Your task to perform on an android device: Open Chrome and go to settings Image 0: 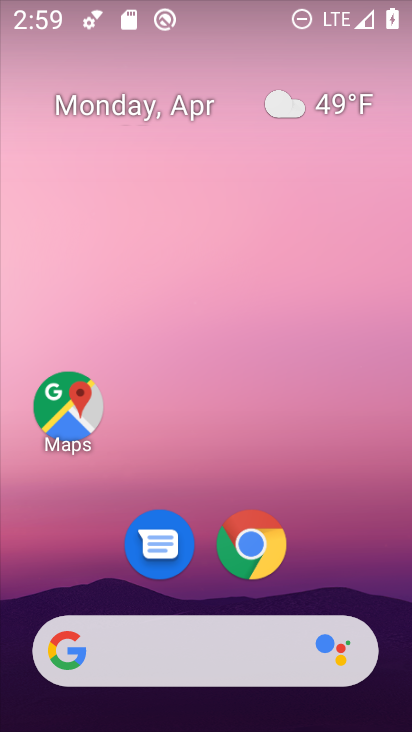
Step 0: click (265, 545)
Your task to perform on an android device: Open Chrome and go to settings Image 1: 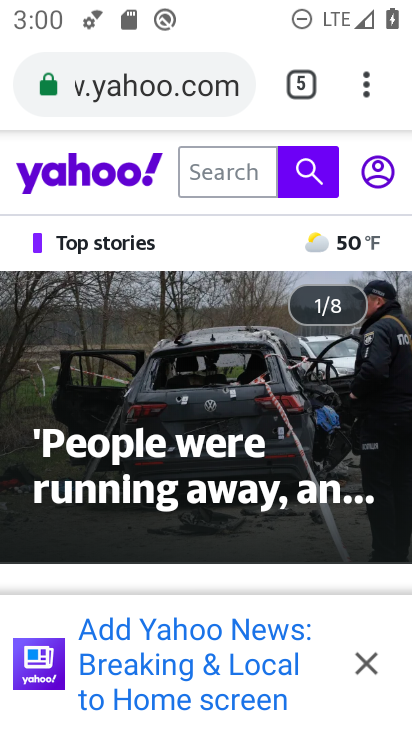
Step 1: click (364, 88)
Your task to perform on an android device: Open Chrome and go to settings Image 2: 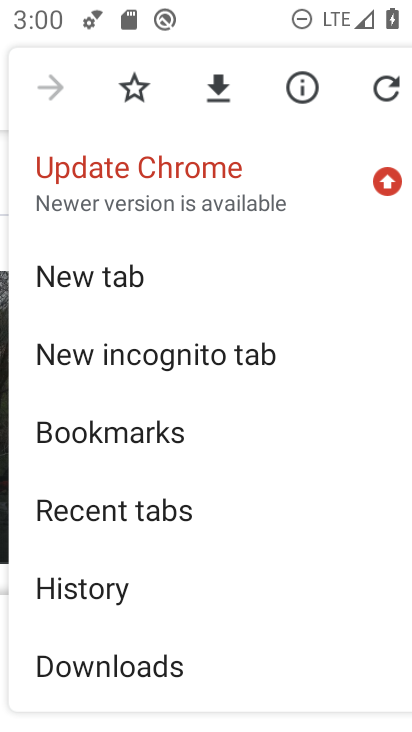
Step 2: drag from (261, 601) to (234, 136)
Your task to perform on an android device: Open Chrome and go to settings Image 3: 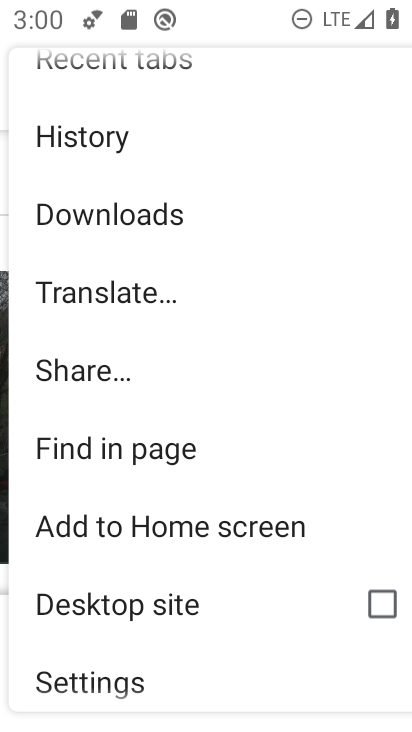
Step 3: click (161, 679)
Your task to perform on an android device: Open Chrome and go to settings Image 4: 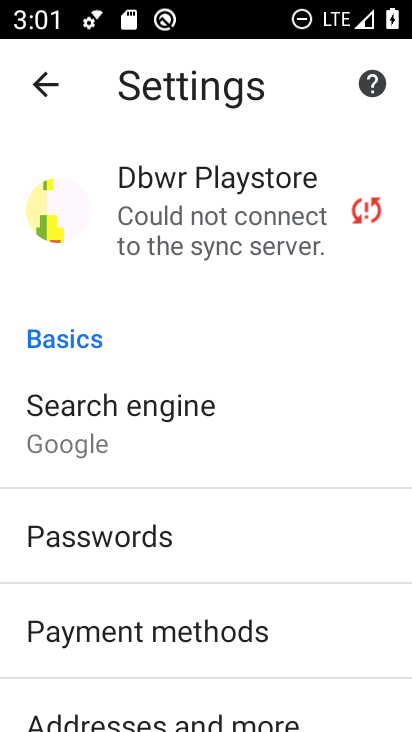
Step 4: task complete